Your task to perform on an android device: Go to Reddit.com Image 0: 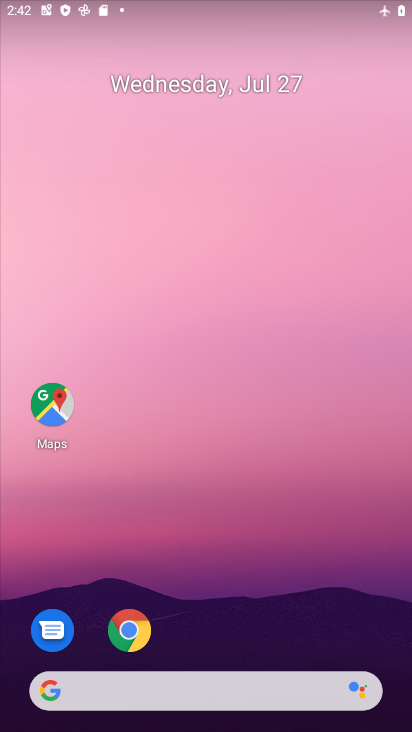
Step 0: click (120, 634)
Your task to perform on an android device: Go to Reddit.com Image 1: 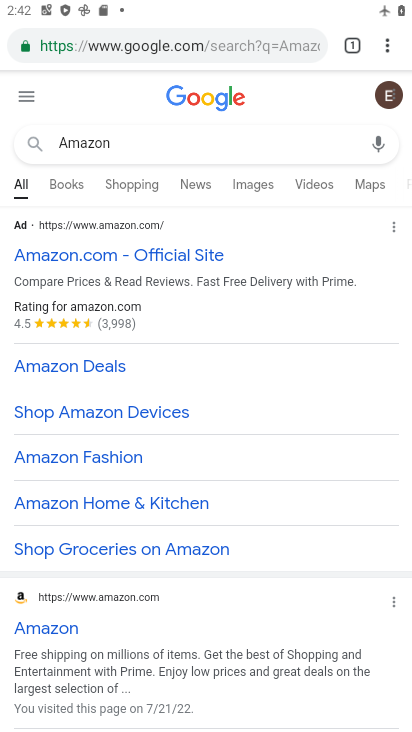
Step 1: click (291, 40)
Your task to perform on an android device: Go to Reddit.com Image 2: 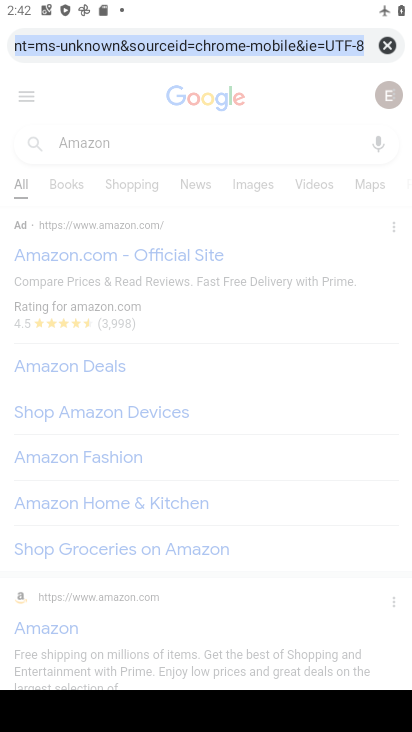
Step 2: click (387, 43)
Your task to perform on an android device: Go to Reddit.com Image 3: 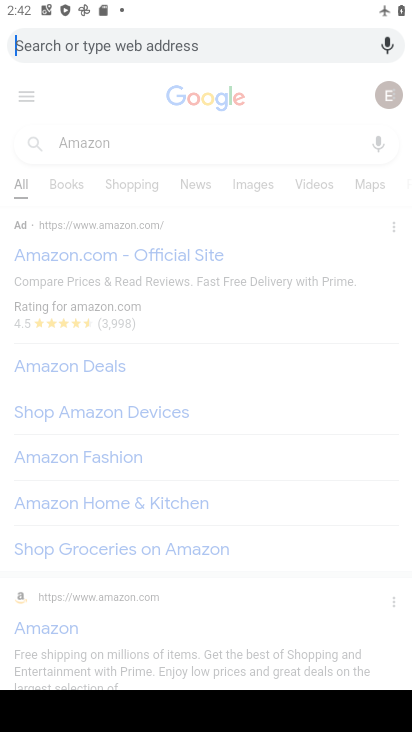
Step 3: type "Reddit.com"
Your task to perform on an android device: Go to Reddit.com Image 4: 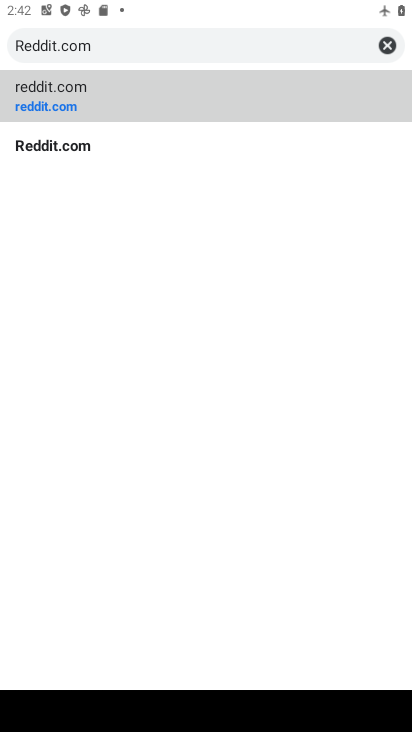
Step 4: click (58, 108)
Your task to perform on an android device: Go to Reddit.com Image 5: 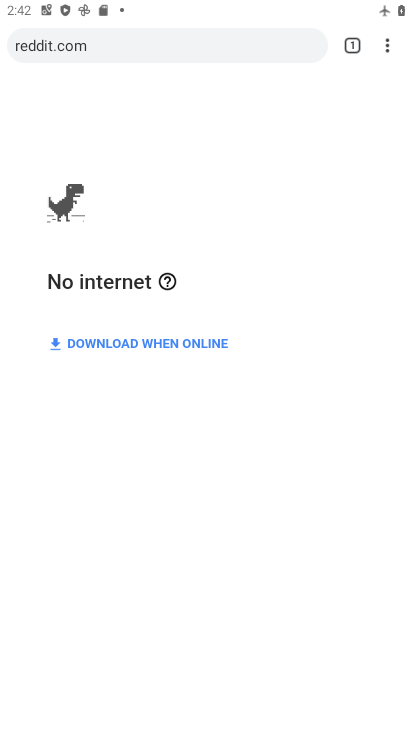
Step 5: task complete